Your task to perform on an android device: Open calendar and show me the first week of next month Image 0: 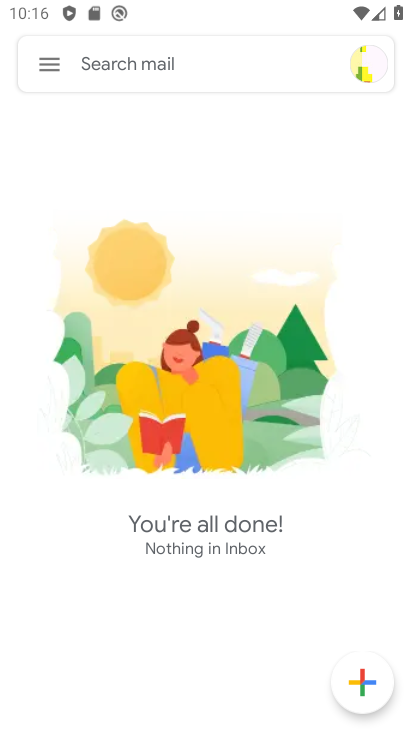
Step 0: press back button
Your task to perform on an android device: Open calendar and show me the first week of next month Image 1: 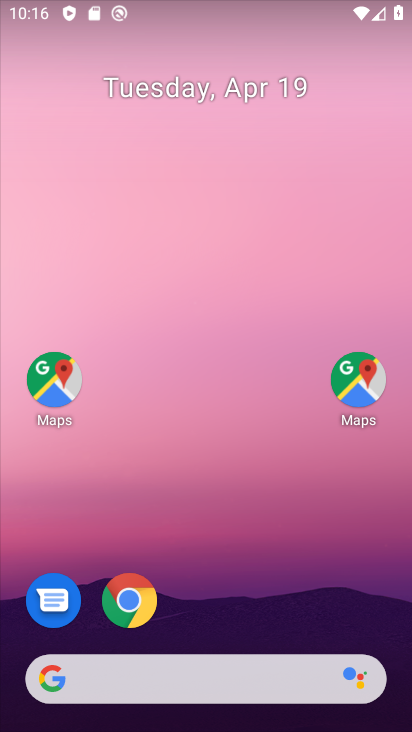
Step 1: drag from (227, 669) to (218, 150)
Your task to perform on an android device: Open calendar and show me the first week of next month Image 2: 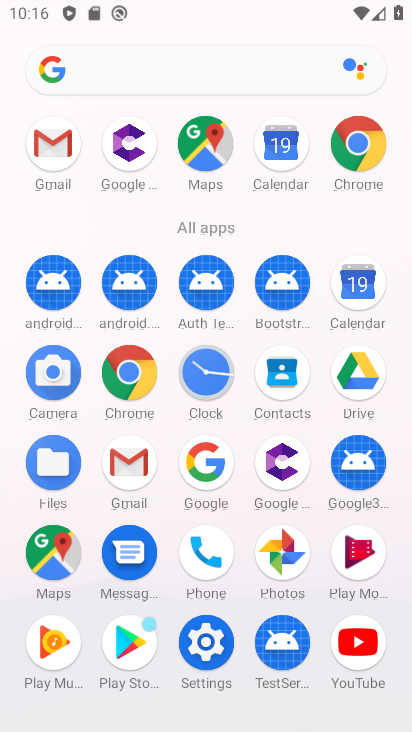
Step 2: click (345, 285)
Your task to perform on an android device: Open calendar and show me the first week of next month Image 3: 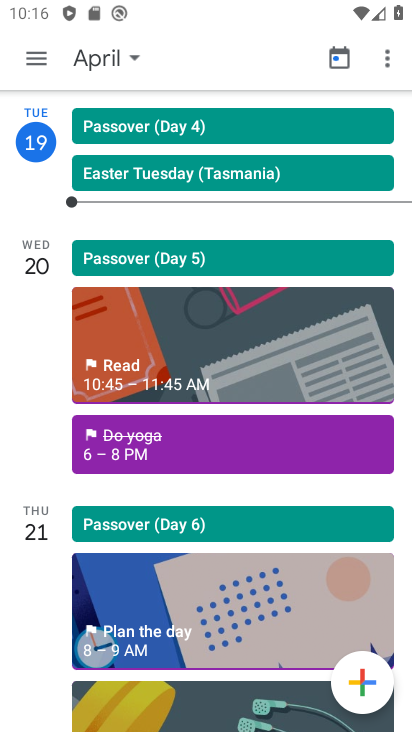
Step 3: click (132, 55)
Your task to perform on an android device: Open calendar and show me the first week of next month Image 4: 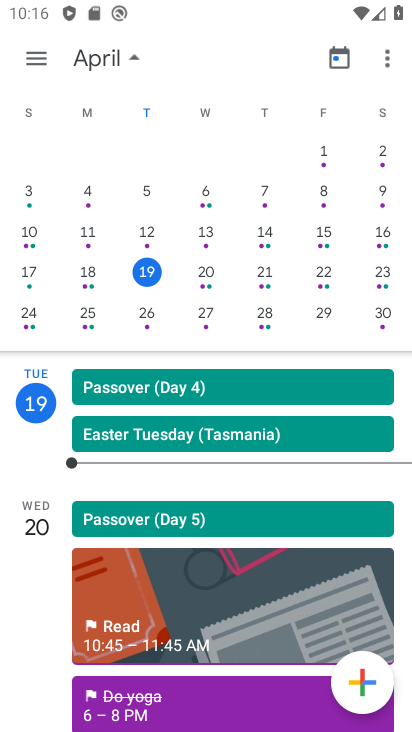
Step 4: task complete